Your task to perform on an android device: Open privacy settings Image 0: 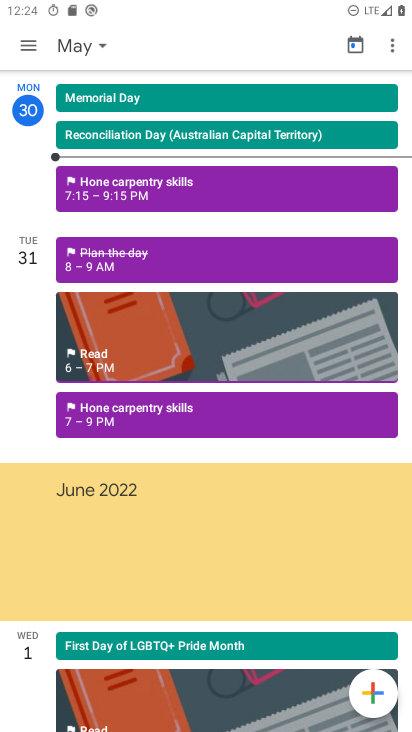
Step 0: press home button
Your task to perform on an android device: Open privacy settings Image 1: 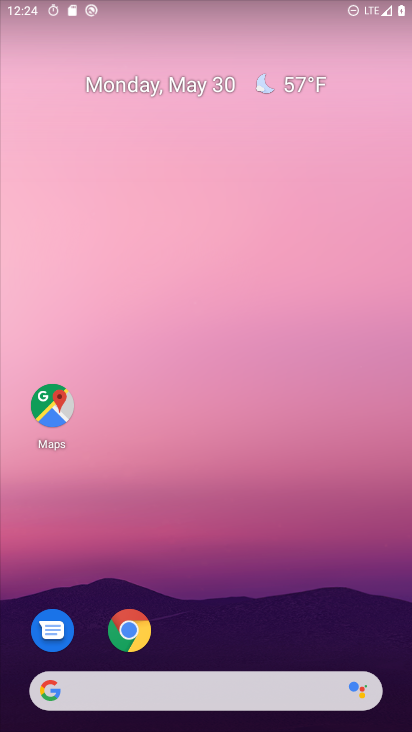
Step 1: drag from (268, 727) to (355, 15)
Your task to perform on an android device: Open privacy settings Image 2: 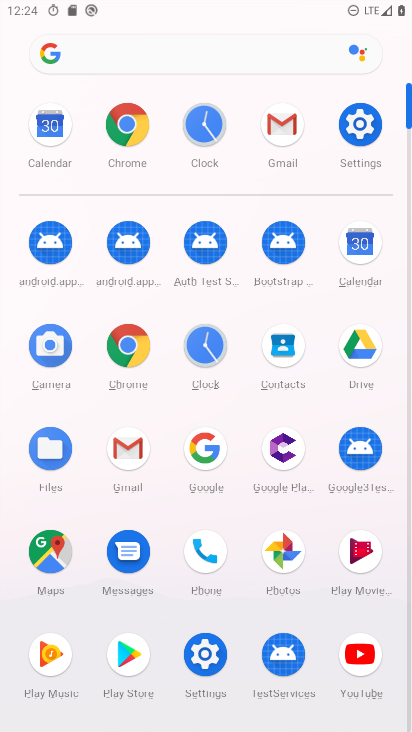
Step 2: click (364, 128)
Your task to perform on an android device: Open privacy settings Image 3: 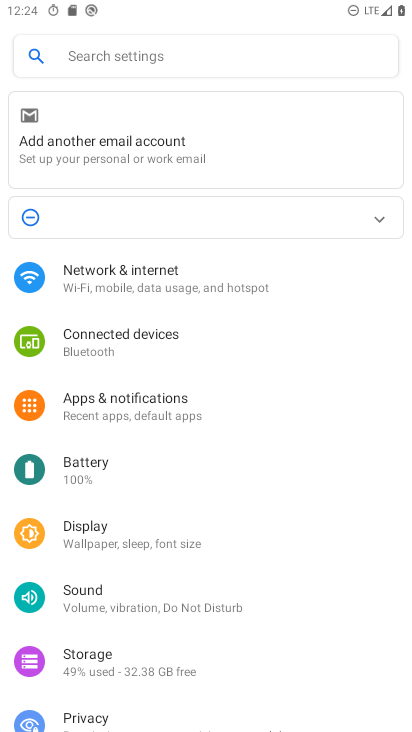
Step 3: click (134, 710)
Your task to perform on an android device: Open privacy settings Image 4: 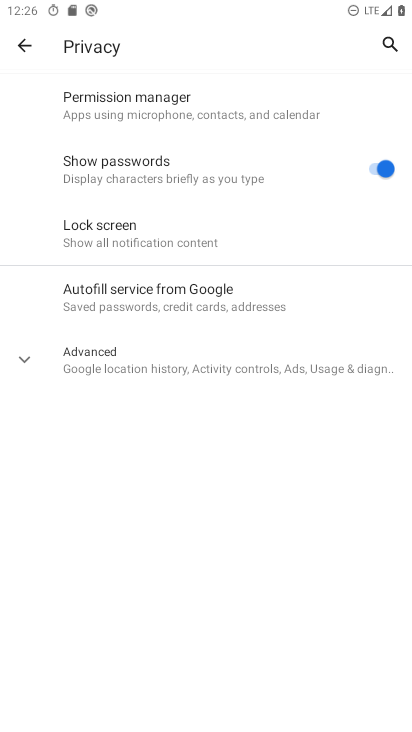
Step 4: task complete